Your task to perform on an android device: read, delete, or share a saved page in the chrome app Image 0: 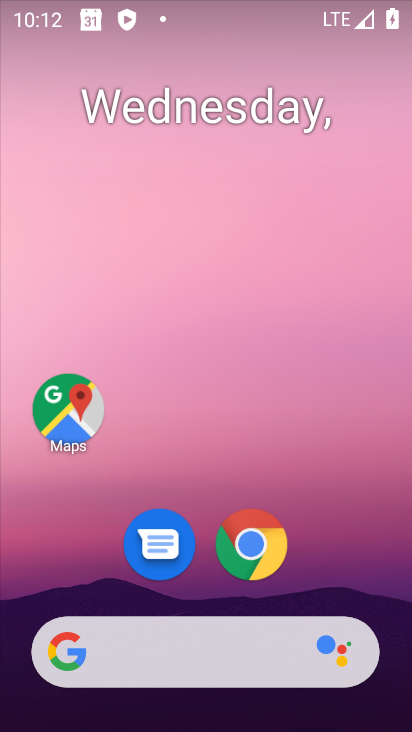
Step 0: click (253, 543)
Your task to perform on an android device: read, delete, or share a saved page in the chrome app Image 1: 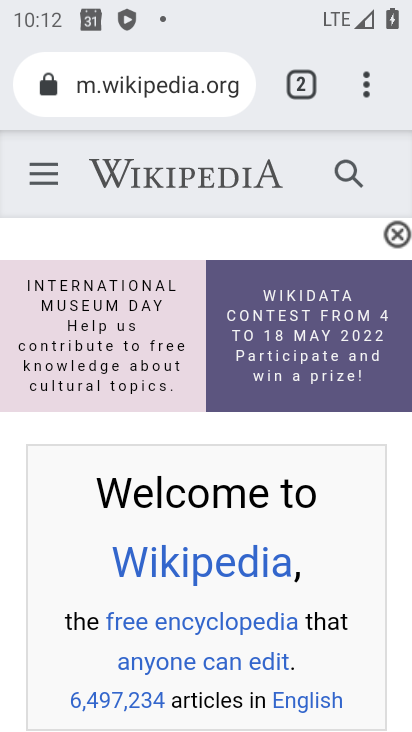
Step 1: click (369, 73)
Your task to perform on an android device: read, delete, or share a saved page in the chrome app Image 2: 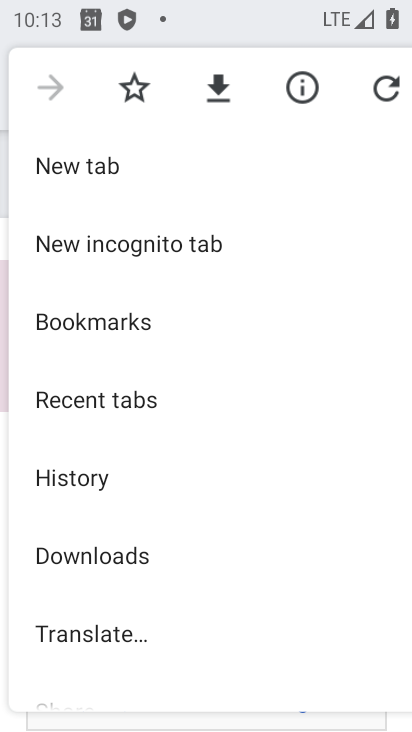
Step 2: click (104, 557)
Your task to perform on an android device: read, delete, or share a saved page in the chrome app Image 3: 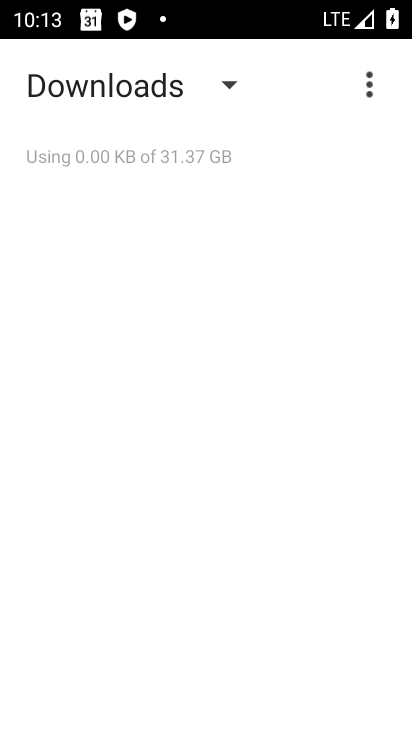
Step 3: click (226, 80)
Your task to perform on an android device: read, delete, or share a saved page in the chrome app Image 4: 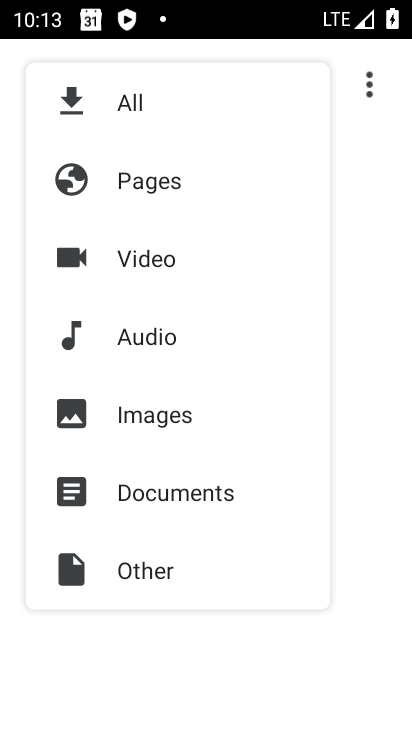
Step 4: click (129, 170)
Your task to perform on an android device: read, delete, or share a saved page in the chrome app Image 5: 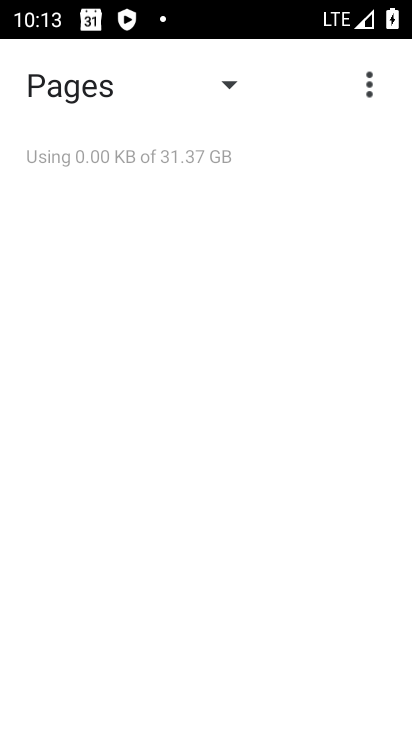
Step 5: task complete